Your task to perform on an android device: turn vacation reply on in the gmail app Image 0: 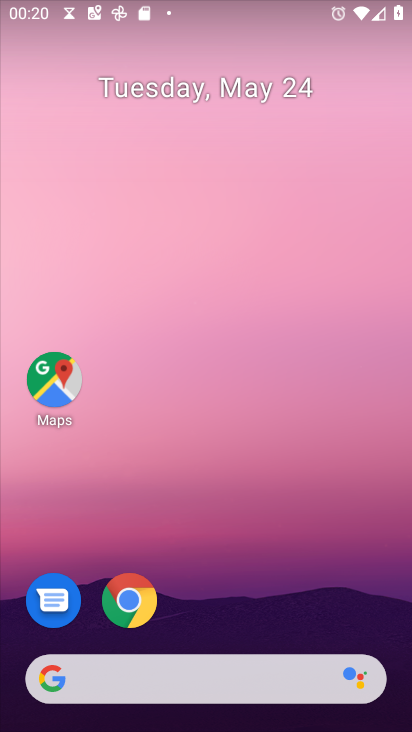
Step 0: drag from (223, 727) to (217, 87)
Your task to perform on an android device: turn vacation reply on in the gmail app Image 1: 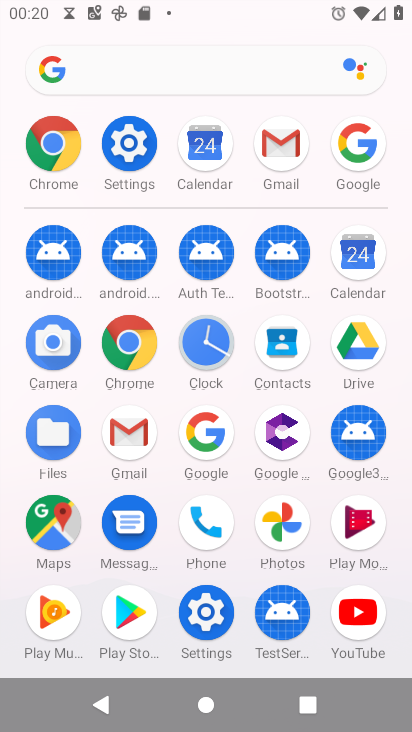
Step 1: click (137, 435)
Your task to perform on an android device: turn vacation reply on in the gmail app Image 2: 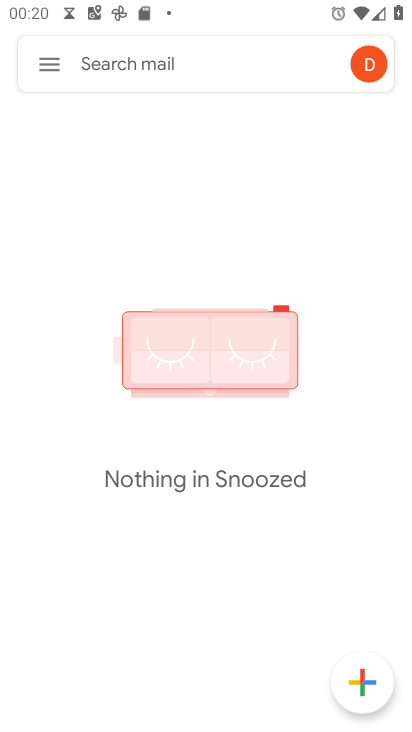
Step 2: click (44, 65)
Your task to perform on an android device: turn vacation reply on in the gmail app Image 3: 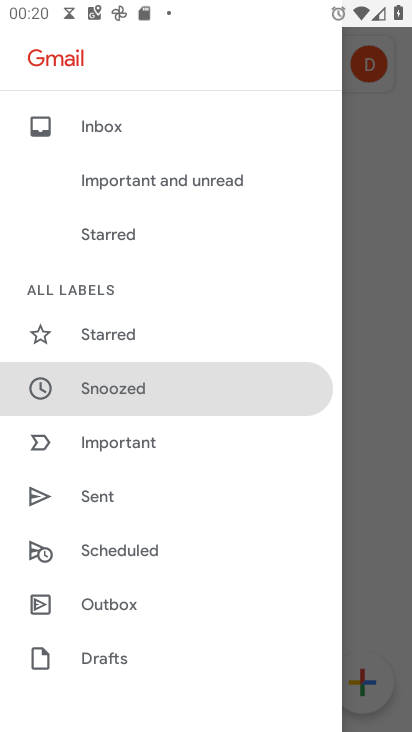
Step 3: drag from (140, 606) to (143, 306)
Your task to perform on an android device: turn vacation reply on in the gmail app Image 4: 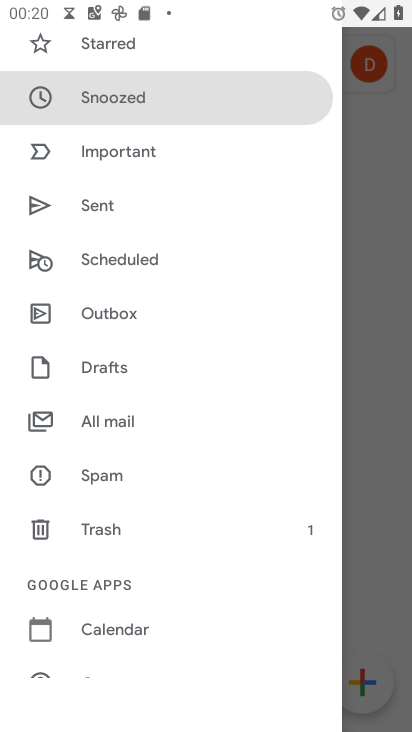
Step 4: drag from (139, 614) to (149, 256)
Your task to perform on an android device: turn vacation reply on in the gmail app Image 5: 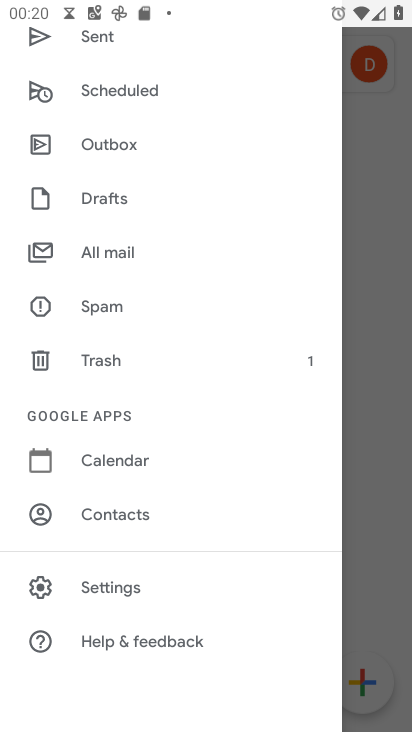
Step 5: click (112, 586)
Your task to perform on an android device: turn vacation reply on in the gmail app Image 6: 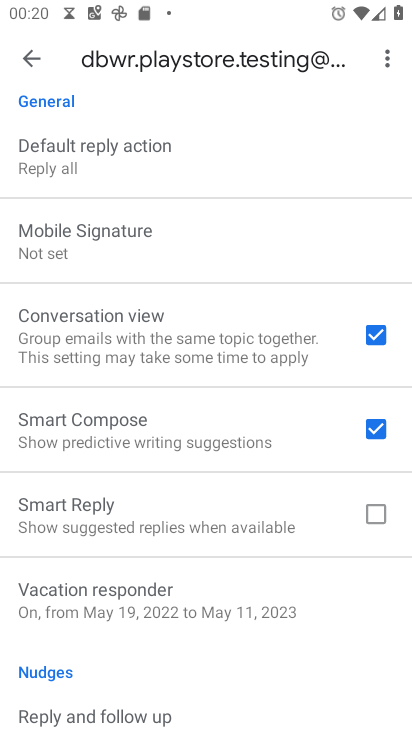
Step 6: drag from (134, 634) to (154, 423)
Your task to perform on an android device: turn vacation reply on in the gmail app Image 7: 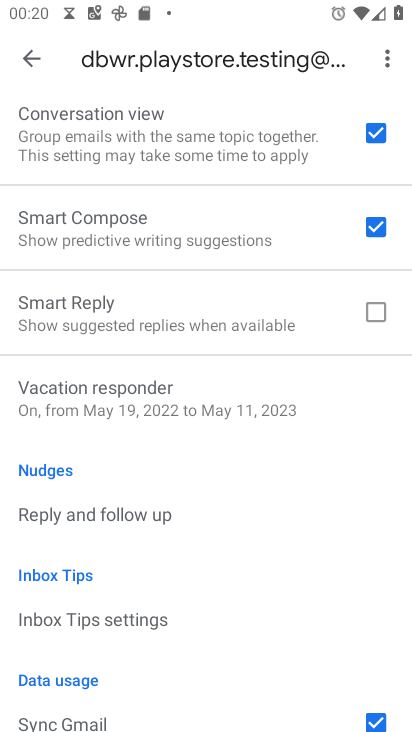
Step 7: click (139, 402)
Your task to perform on an android device: turn vacation reply on in the gmail app Image 8: 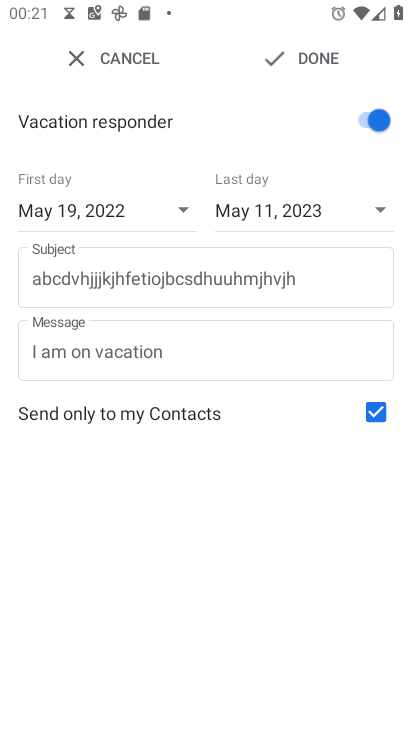
Step 8: task complete